Your task to perform on an android device: create a new album in the google photos Image 0: 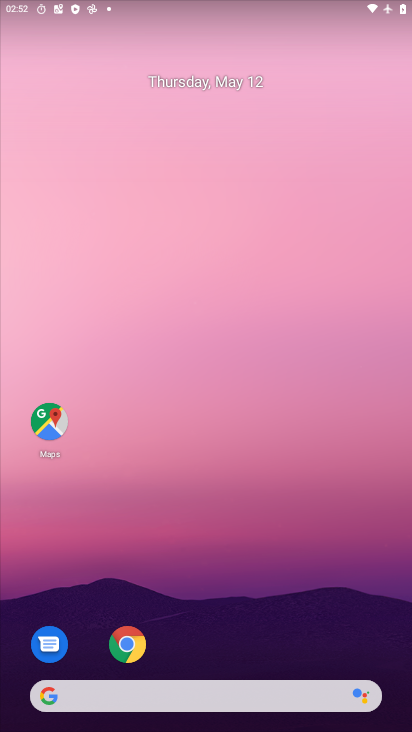
Step 0: drag from (253, 369) to (213, 89)
Your task to perform on an android device: create a new album in the google photos Image 1: 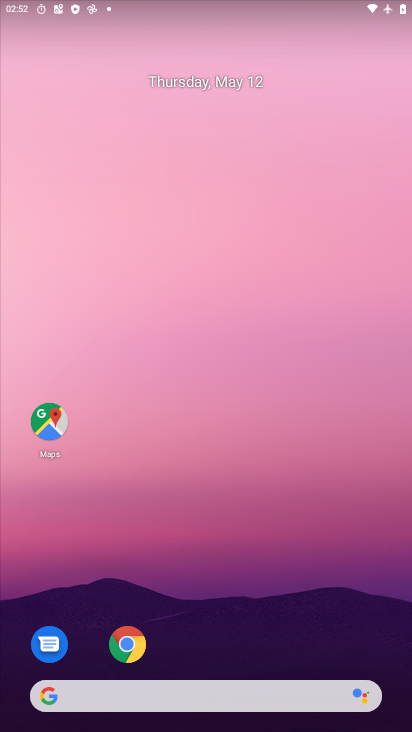
Step 1: drag from (247, 507) to (193, 71)
Your task to perform on an android device: create a new album in the google photos Image 2: 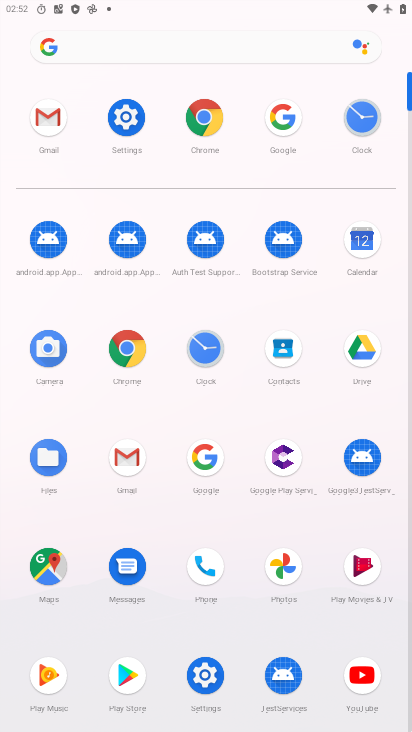
Step 2: click (281, 574)
Your task to perform on an android device: create a new album in the google photos Image 3: 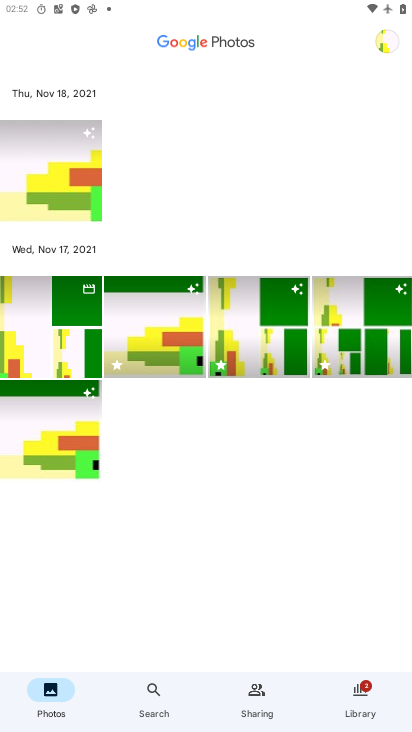
Step 3: click (361, 708)
Your task to perform on an android device: create a new album in the google photos Image 4: 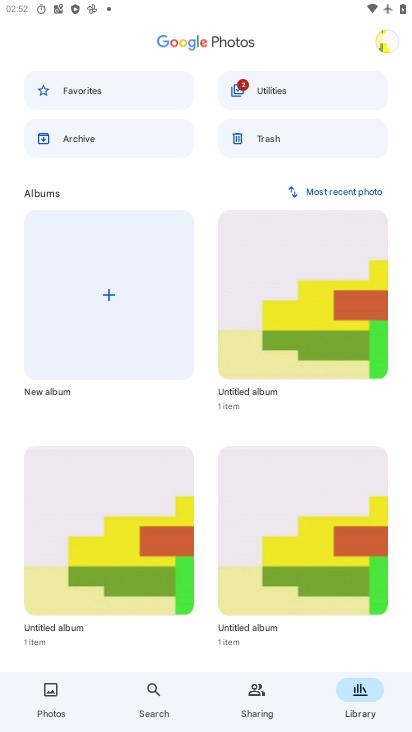
Step 4: click (98, 295)
Your task to perform on an android device: create a new album in the google photos Image 5: 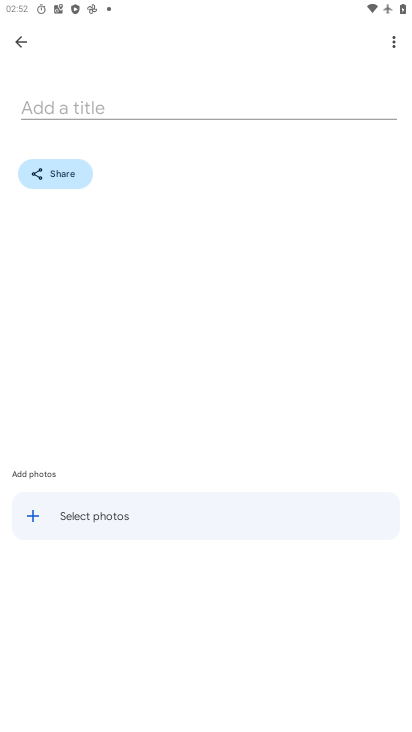
Step 5: click (134, 95)
Your task to perform on an android device: create a new album in the google photos Image 6: 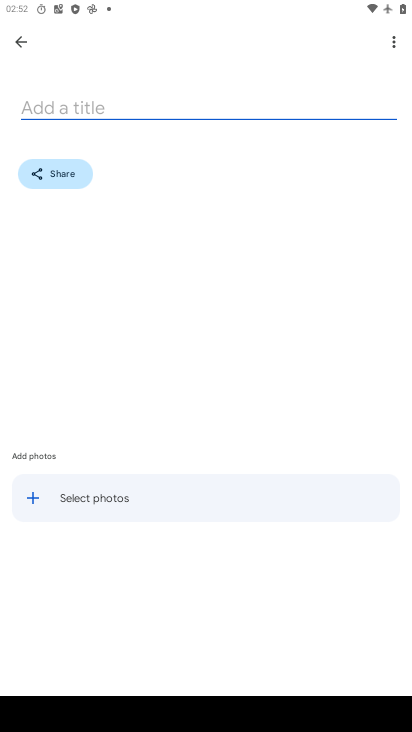
Step 6: type "xczxcc"
Your task to perform on an android device: create a new album in the google photos Image 7: 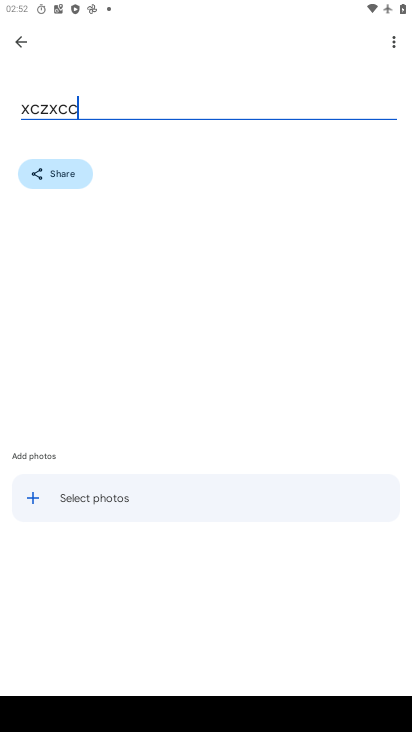
Step 7: type ""
Your task to perform on an android device: create a new album in the google photos Image 8: 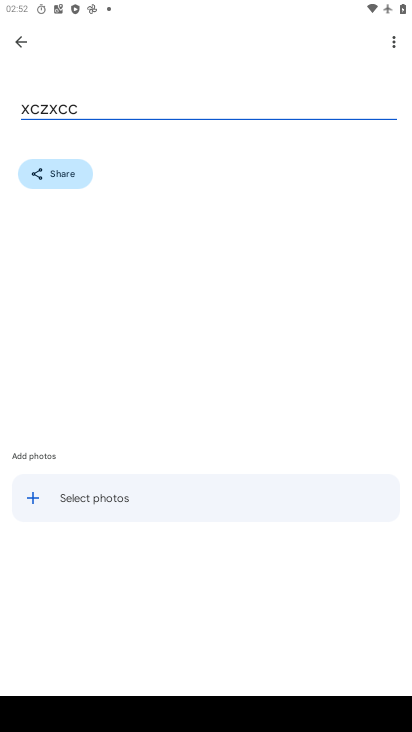
Step 8: click (113, 496)
Your task to perform on an android device: create a new album in the google photos Image 9: 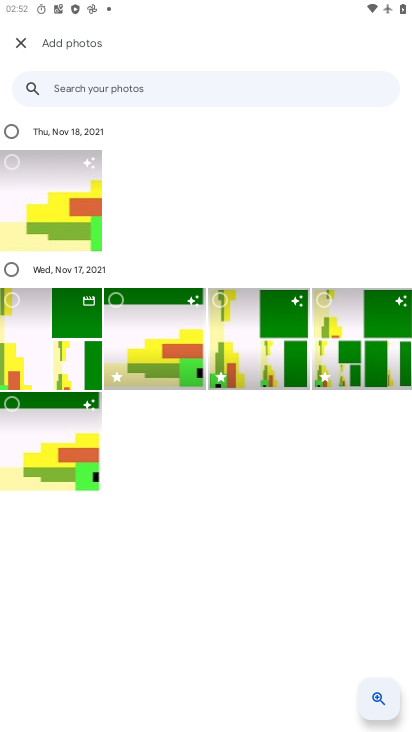
Step 9: click (162, 331)
Your task to perform on an android device: create a new album in the google photos Image 10: 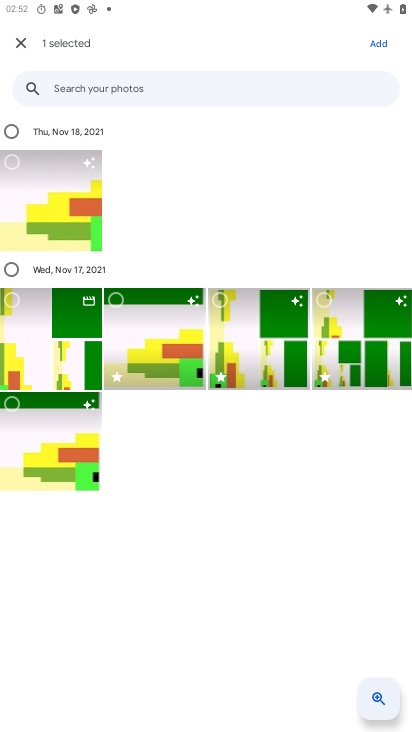
Step 10: click (351, 339)
Your task to perform on an android device: create a new album in the google photos Image 11: 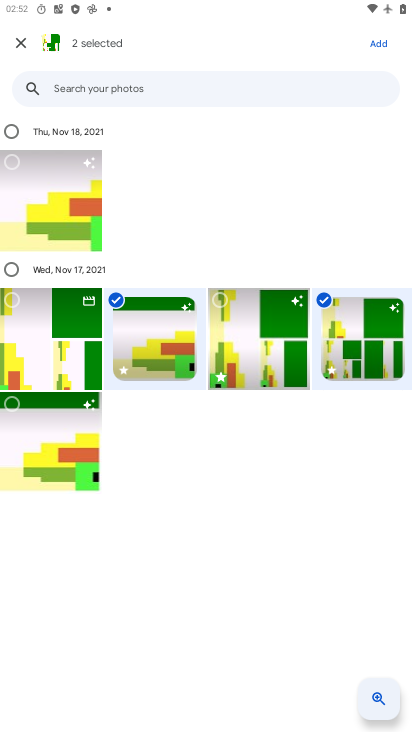
Step 11: click (380, 44)
Your task to perform on an android device: create a new album in the google photos Image 12: 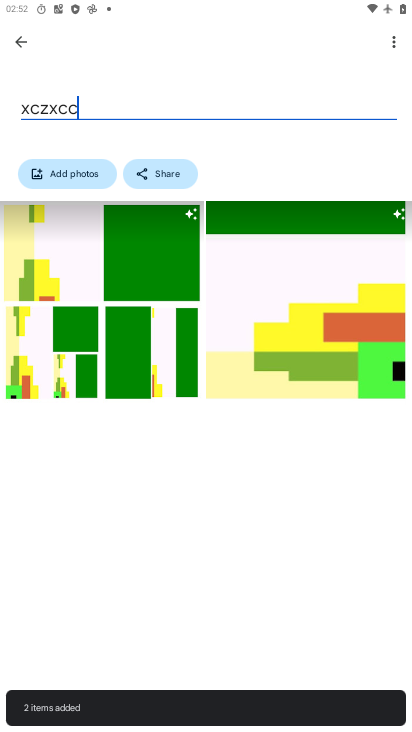
Step 12: task complete